Your task to perform on an android device: When is my next meeting? Image 0: 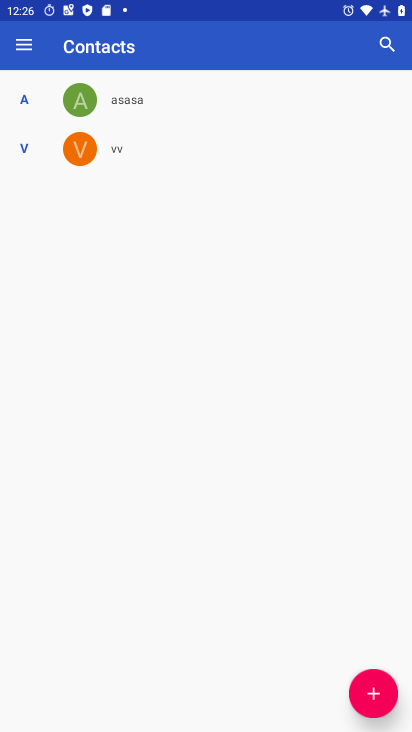
Step 0: press home button
Your task to perform on an android device: When is my next meeting? Image 1: 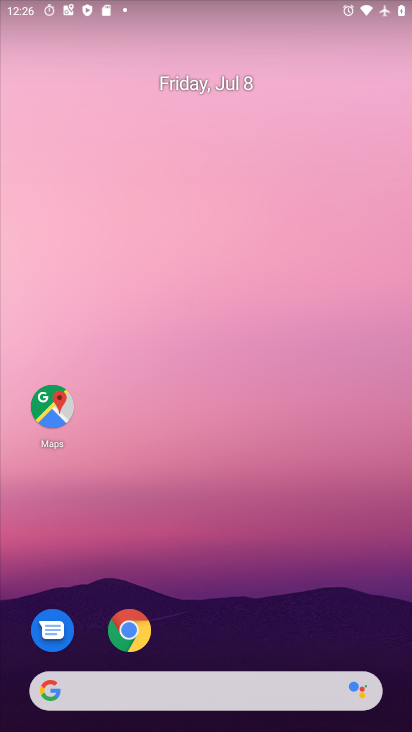
Step 1: drag from (201, 614) to (228, 194)
Your task to perform on an android device: When is my next meeting? Image 2: 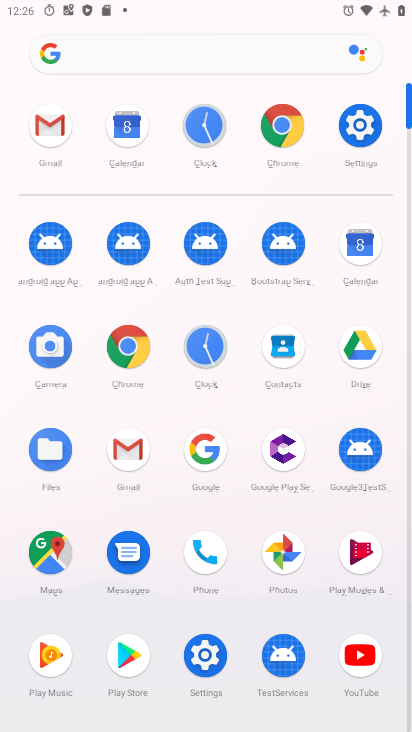
Step 2: click (134, 146)
Your task to perform on an android device: When is my next meeting? Image 3: 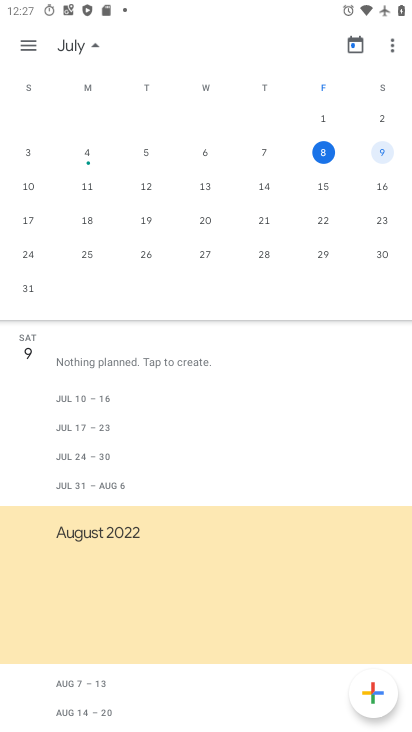
Step 3: click (209, 351)
Your task to perform on an android device: When is my next meeting? Image 4: 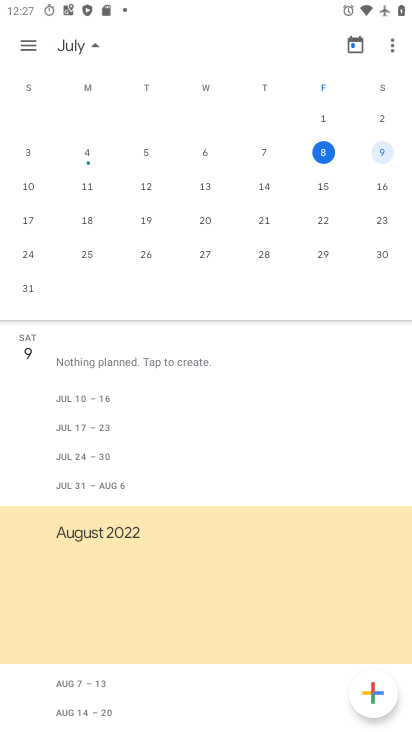
Step 4: task complete